Your task to perform on an android device: Open the web browser Image 0: 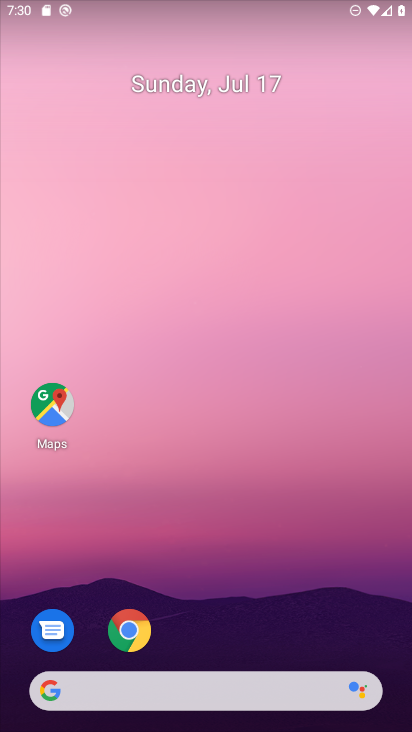
Step 0: drag from (396, 675) to (210, 78)
Your task to perform on an android device: Open the web browser Image 1: 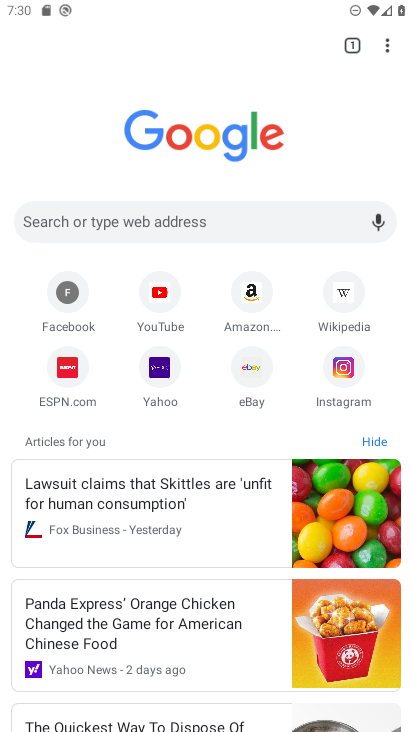
Step 1: press home button
Your task to perform on an android device: Open the web browser Image 2: 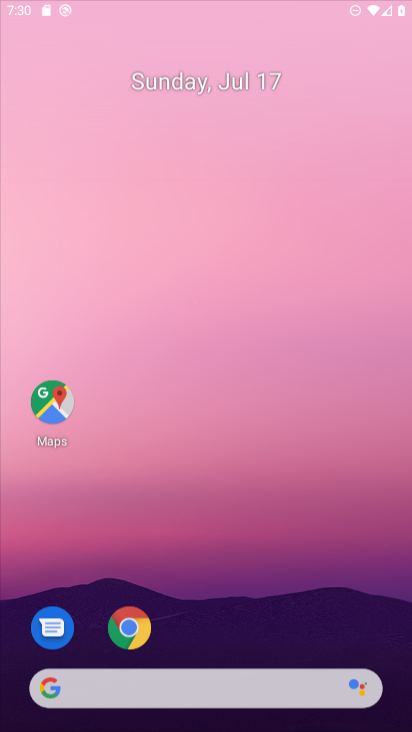
Step 2: drag from (365, 700) to (158, 10)
Your task to perform on an android device: Open the web browser Image 3: 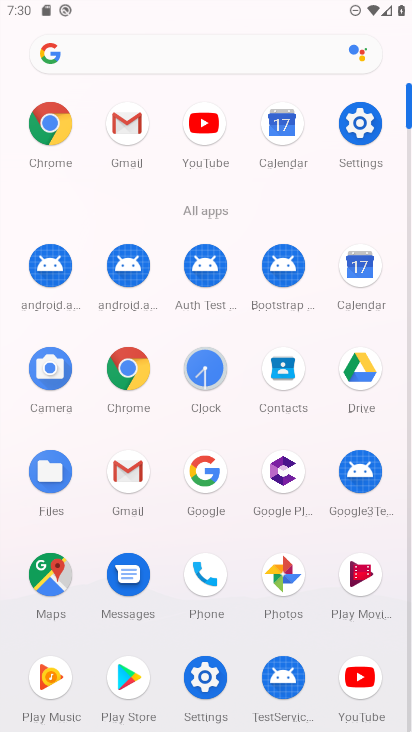
Step 3: click (200, 484)
Your task to perform on an android device: Open the web browser Image 4: 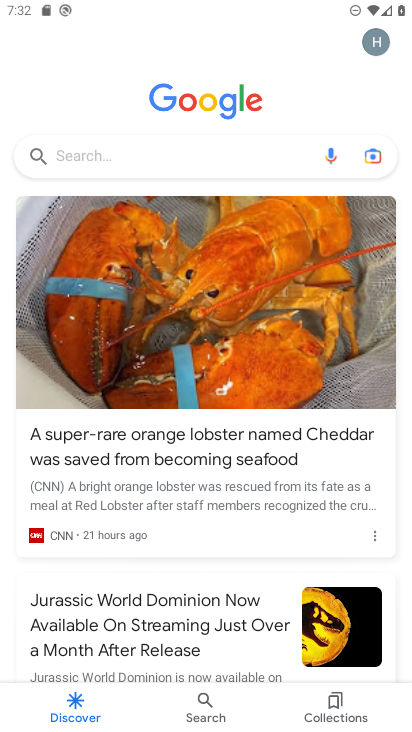
Step 4: click (133, 158)
Your task to perform on an android device: Open the web browser Image 5: 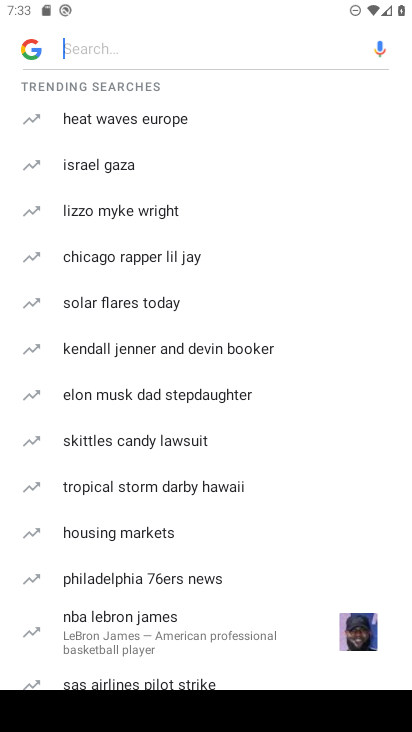
Step 5: type "web browser"
Your task to perform on an android device: Open the web browser Image 6: 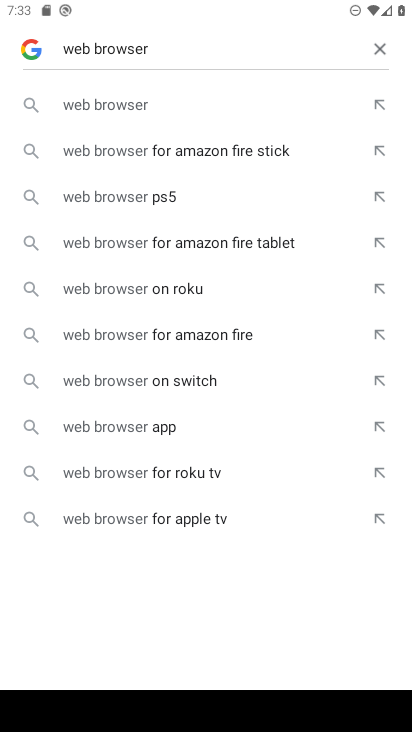
Step 6: click (154, 106)
Your task to perform on an android device: Open the web browser Image 7: 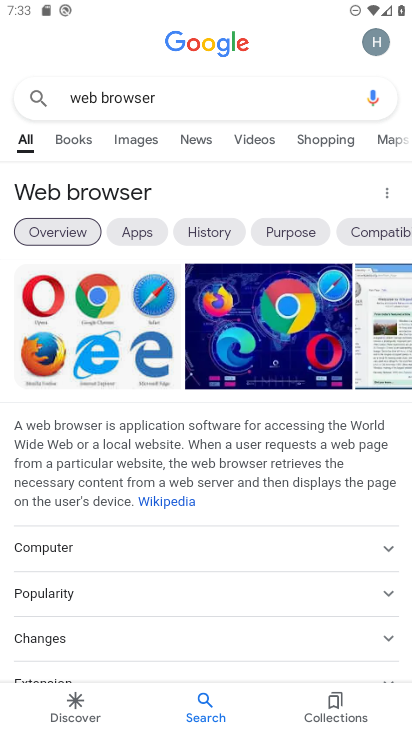
Step 7: task complete